Your task to perform on an android device: turn notification dots on Image 0: 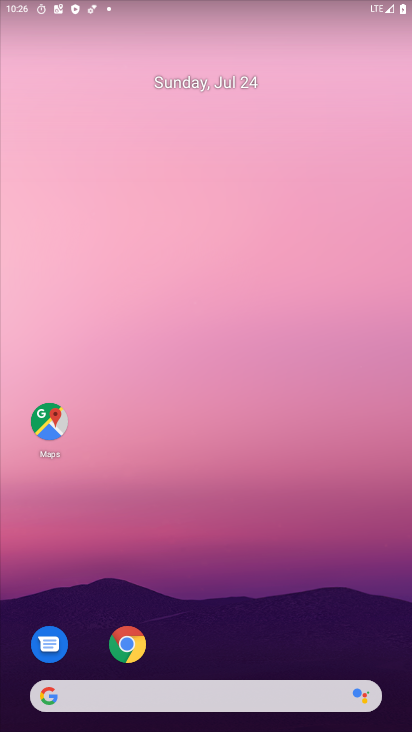
Step 0: drag from (233, 686) to (257, 178)
Your task to perform on an android device: turn notification dots on Image 1: 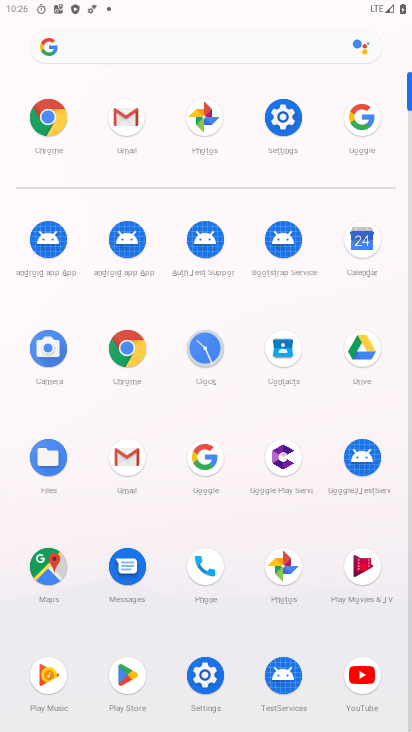
Step 1: click (288, 116)
Your task to perform on an android device: turn notification dots on Image 2: 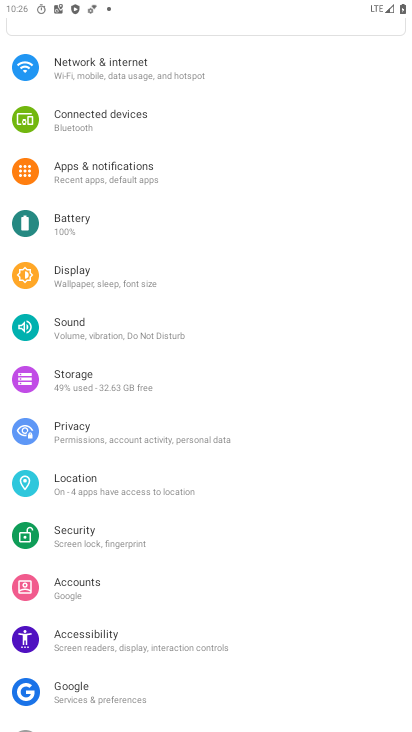
Step 2: click (103, 176)
Your task to perform on an android device: turn notification dots on Image 3: 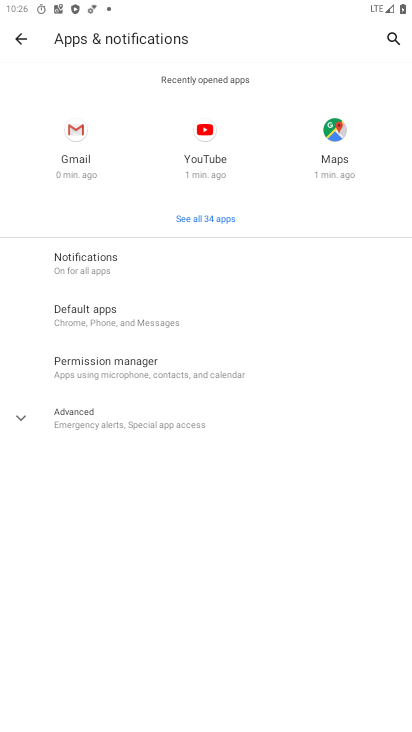
Step 3: click (114, 253)
Your task to perform on an android device: turn notification dots on Image 4: 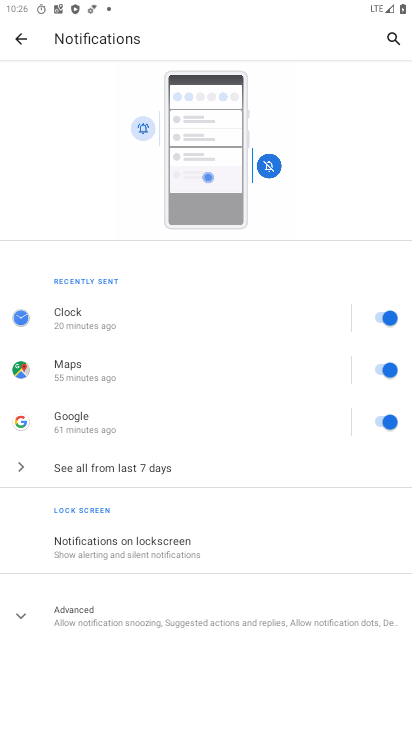
Step 4: click (132, 617)
Your task to perform on an android device: turn notification dots on Image 5: 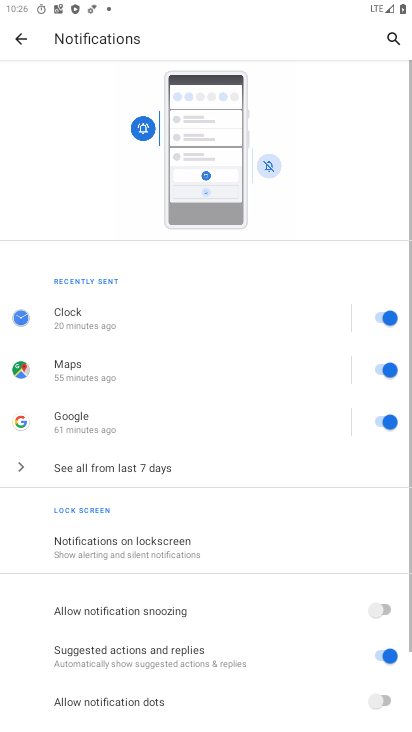
Step 5: drag from (162, 694) to (171, 354)
Your task to perform on an android device: turn notification dots on Image 6: 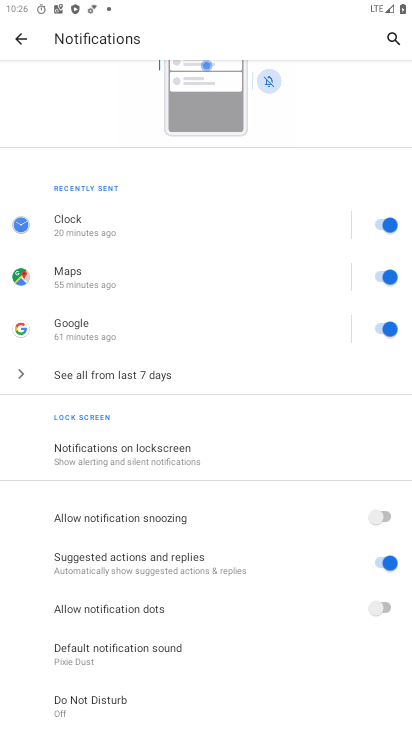
Step 6: click (387, 608)
Your task to perform on an android device: turn notification dots on Image 7: 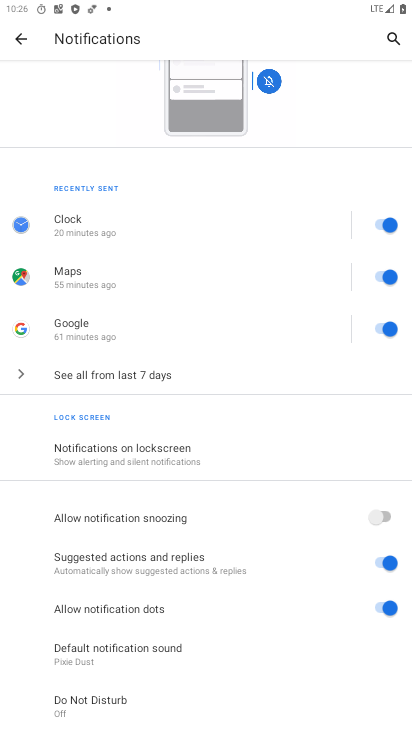
Step 7: task complete